Your task to perform on an android device: Go to location settings Image 0: 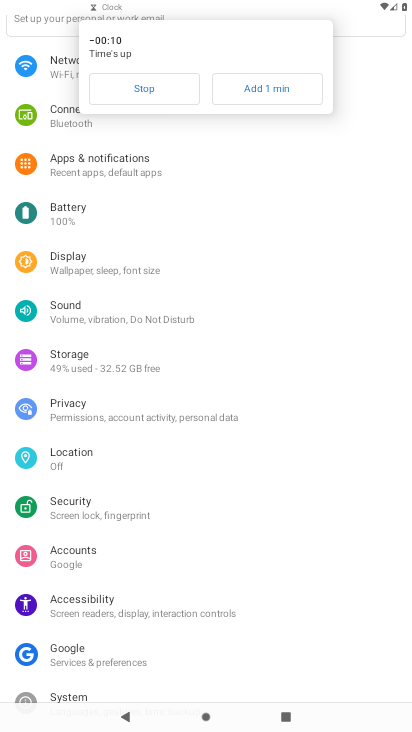
Step 0: click (146, 87)
Your task to perform on an android device: Go to location settings Image 1: 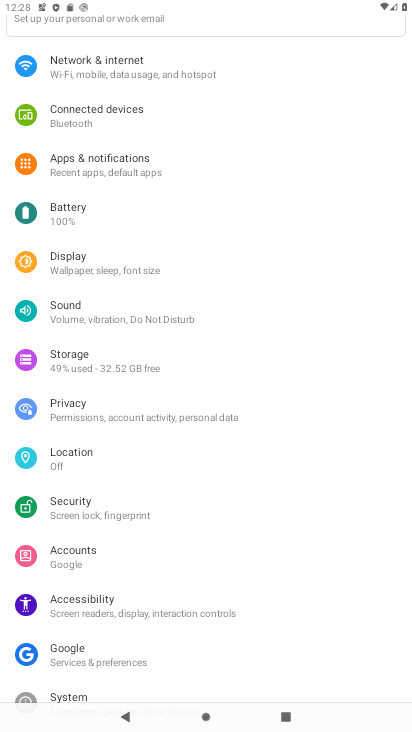
Step 1: click (105, 458)
Your task to perform on an android device: Go to location settings Image 2: 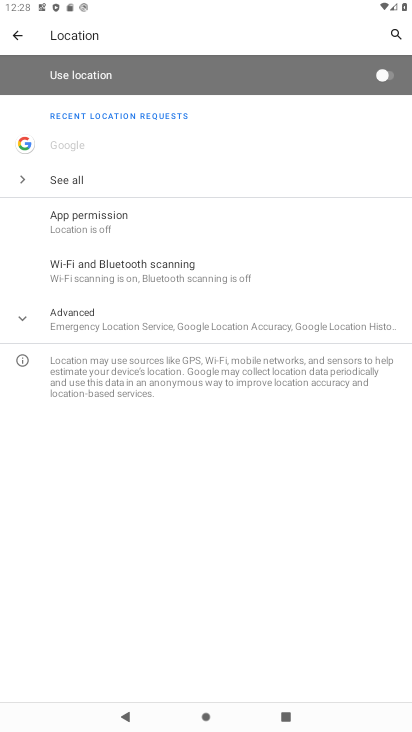
Step 2: task complete